Your task to perform on an android device: find snoozed emails in the gmail app Image 0: 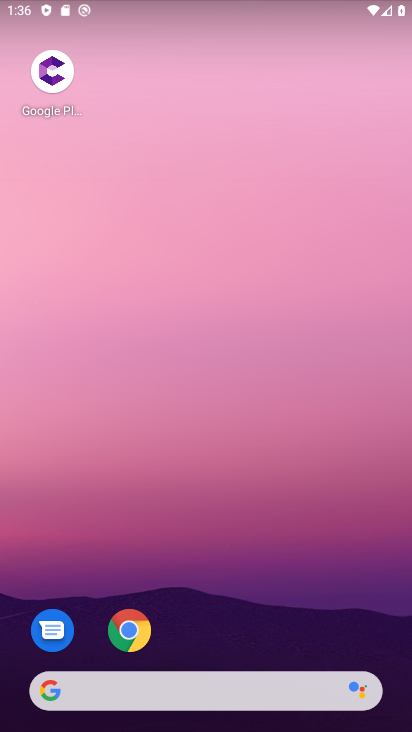
Step 0: drag from (386, 629) to (352, 134)
Your task to perform on an android device: find snoozed emails in the gmail app Image 1: 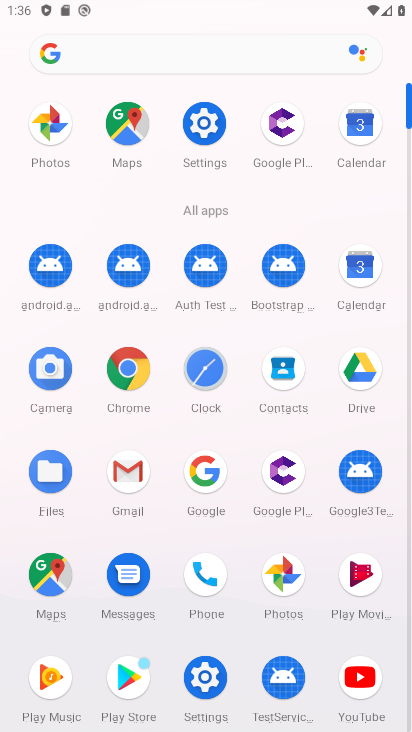
Step 1: click (121, 484)
Your task to perform on an android device: find snoozed emails in the gmail app Image 2: 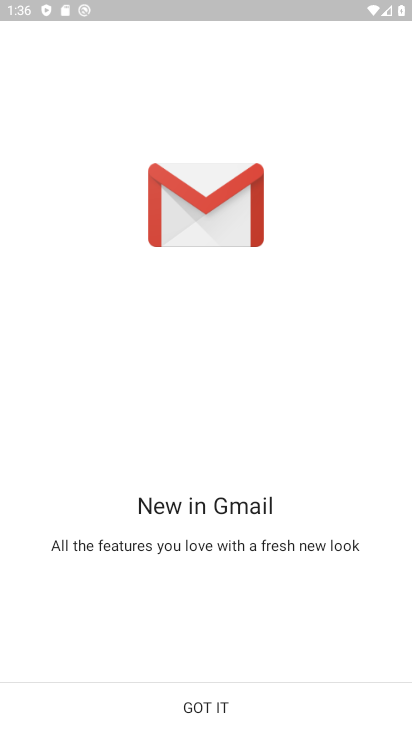
Step 2: click (202, 704)
Your task to perform on an android device: find snoozed emails in the gmail app Image 3: 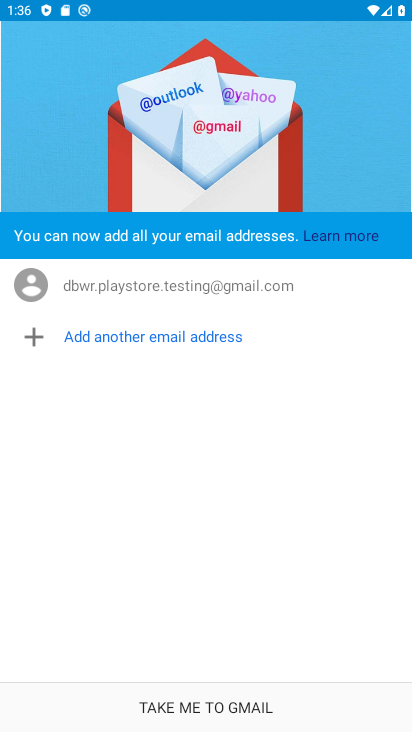
Step 3: click (194, 702)
Your task to perform on an android device: find snoozed emails in the gmail app Image 4: 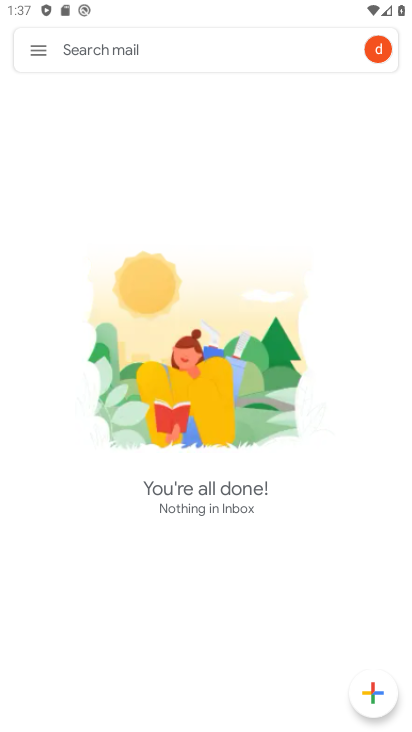
Step 4: click (40, 53)
Your task to perform on an android device: find snoozed emails in the gmail app Image 5: 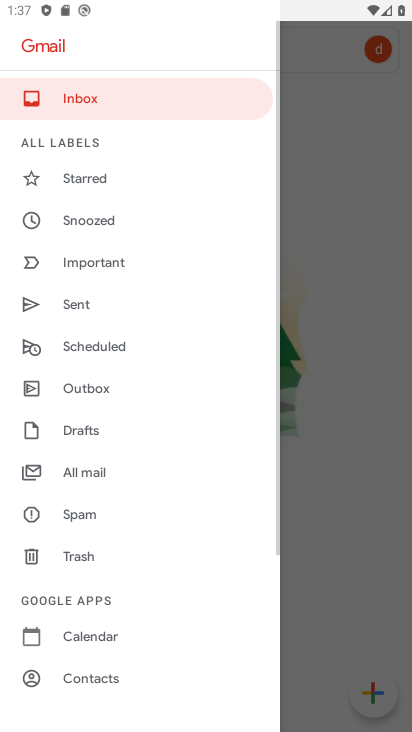
Step 5: click (86, 217)
Your task to perform on an android device: find snoozed emails in the gmail app Image 6: 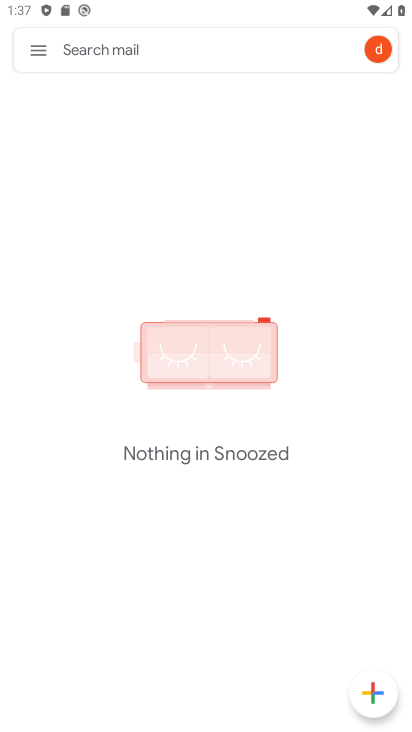
Step 6: task complete